Your task to perform on an android device: move an email to a new category in the gmail app Image 0: 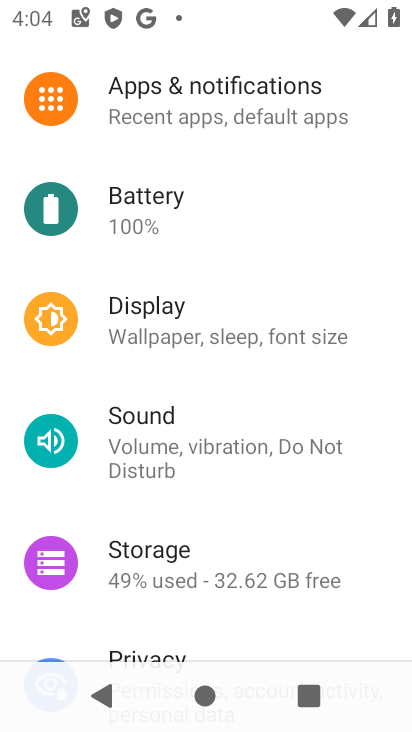
Step 0: press home button
Your task to perform on an android device: move an email to a new category in the gmail app Image 1: 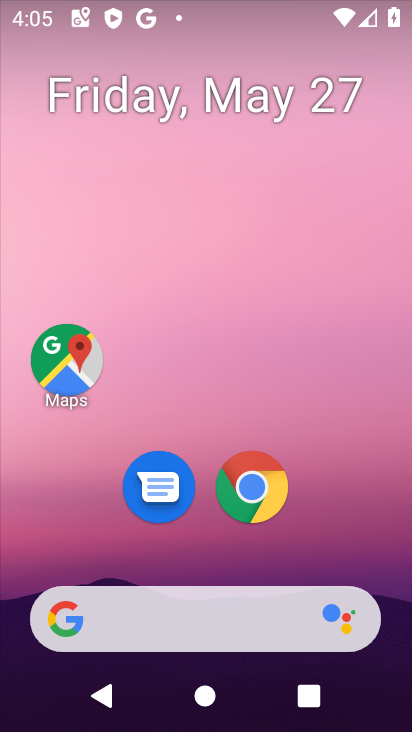
Step 1: drag from (333, 468) to (337, 89)
Your task to perform on an android device: move an email to a new category in the gmail app Image 2: 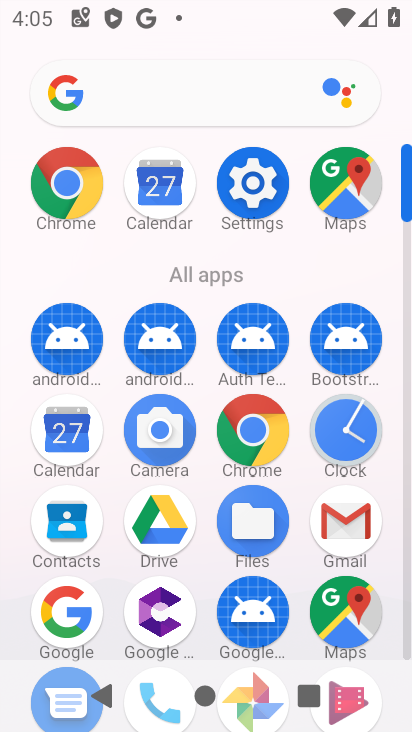
Step 2: click (345, 518)
Your task to perform on an android device: move an email to a new category in the gmail app Image 3: 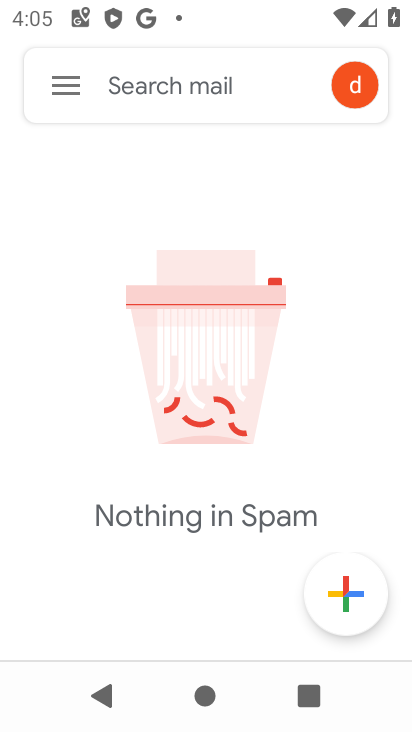
Step 3: click (75, 85)
Your task to perform on an android device: move an email to a new category in the gmail app Image 4: 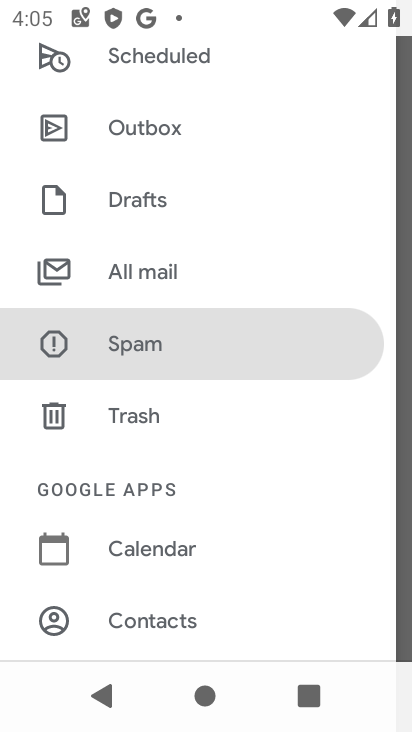
Step 4: click (142, 268)
Your task to perform on an android device: move an email to a new category in the gmail app Image 5: 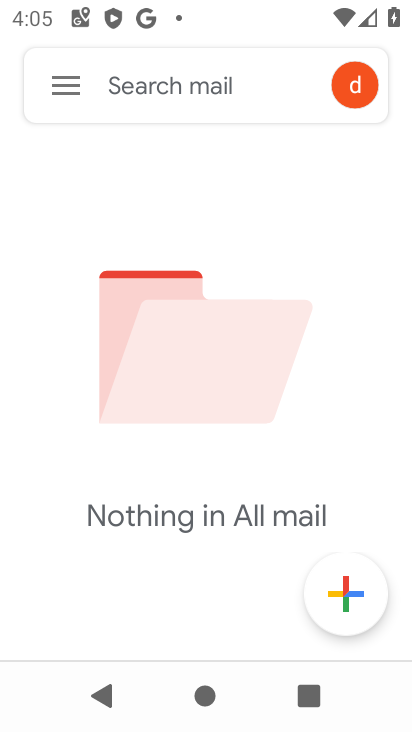
Step 5: task complete